Your task to perform on an android device: turn off translation in the chrome app Image 0: 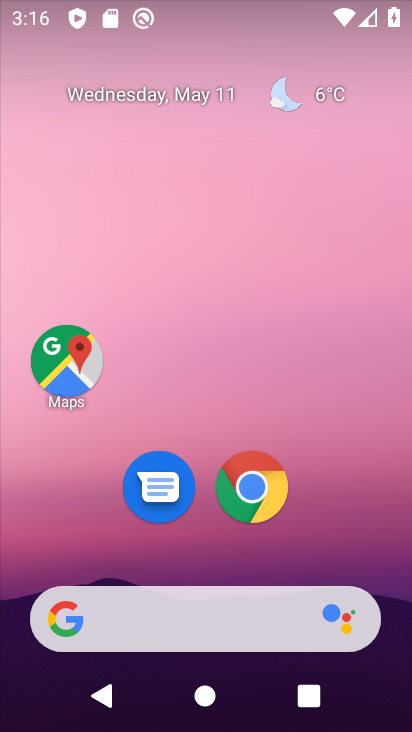
Step 0: click (262, 496)
Your task to perform on an android device: turn off translation in the chrome app Image 1: 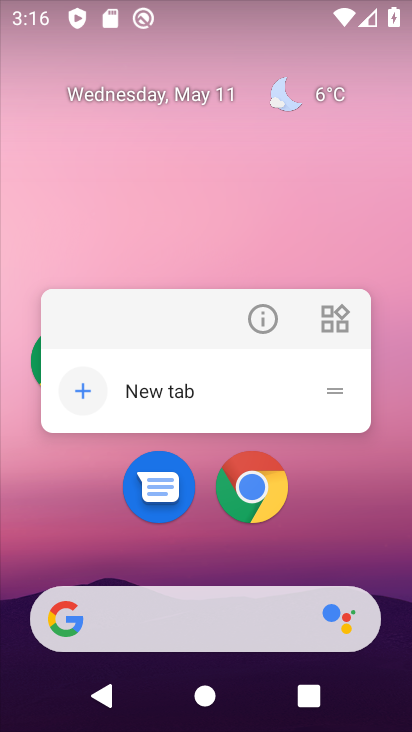
Step 1: click (262, 496)
Your task to perform on an android device: turn off translation in the chrome app Image 2: 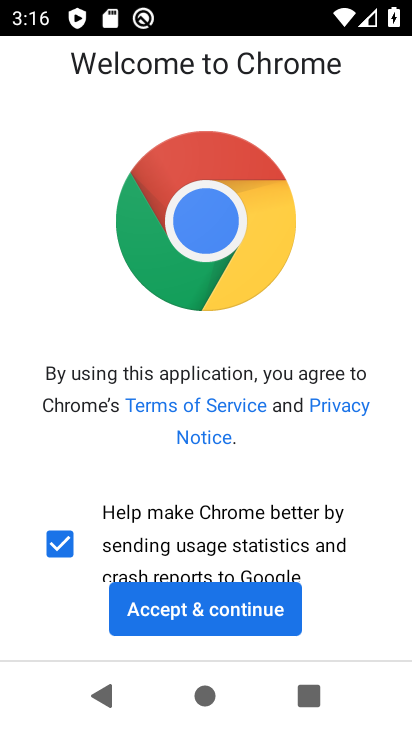
Step 2: click (255, 617)
Your task to perform on an android device: turn off translation in the chrome app Image 3: 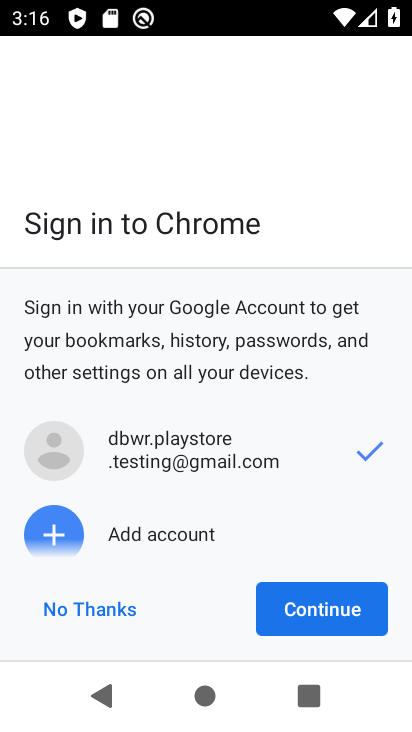
Step 3: click (299, 616)
Your task to perform on an android device: turn off translation in the chrome app Image 4: 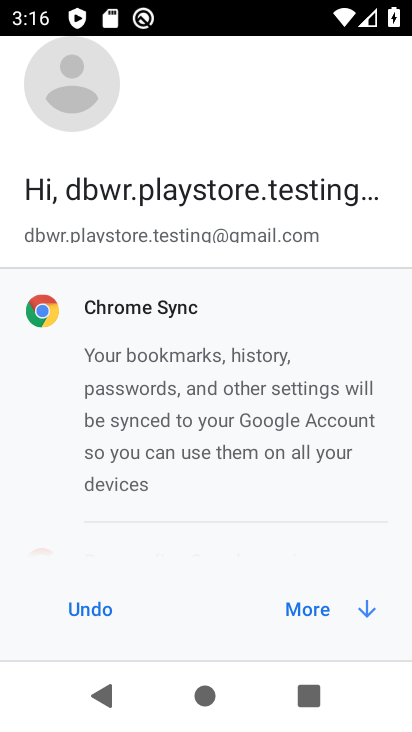
Step 4: click (299, 616)
Your task to perform on an android device: turn off translation in the chrome app Image 5: 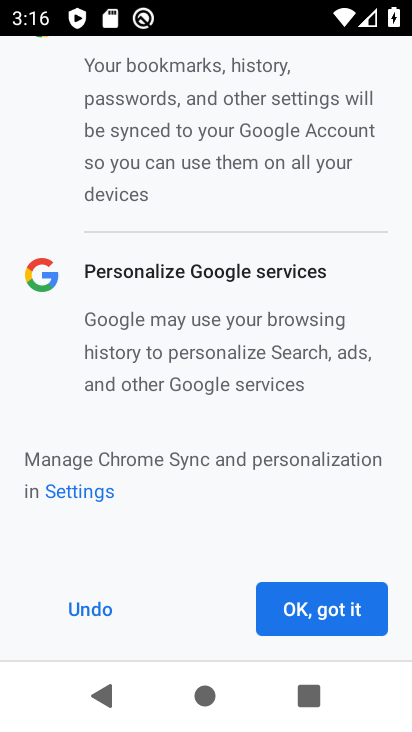
Step 5: click (299, 616)
Your task to perform on an android device: turn off translation in the chrome app Image 6: 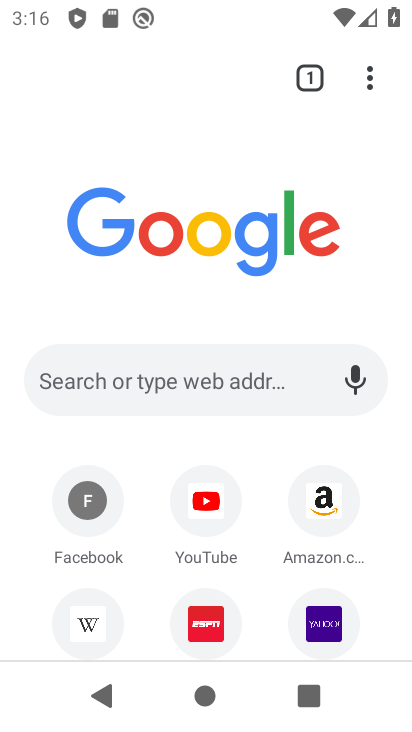
Step 6: drag from (379, 88) to (260, 570)
Your task to perform on an android device: turn off translation in the chrome app Image 7: 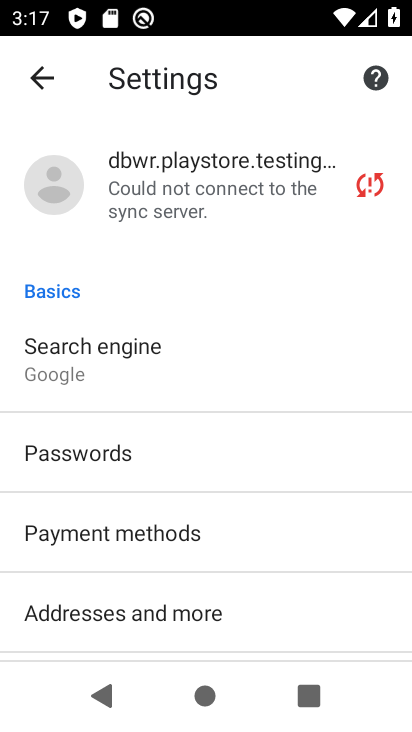
Step 7: drag from (203, 604) to (295, 298)
Your task to perform on an android device: turn off translation in the chrome app Image 8: 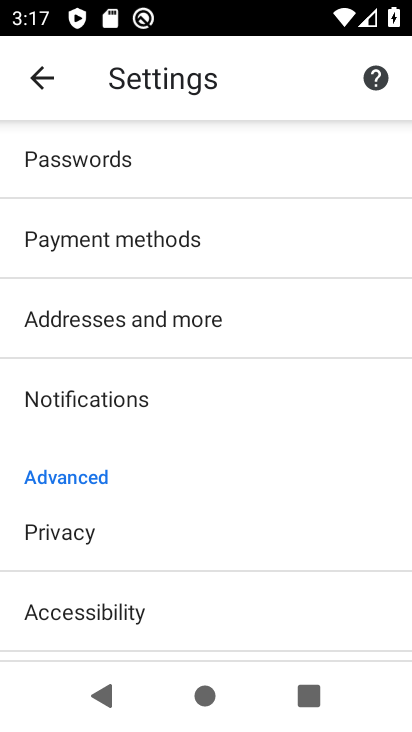
Step 8: drag from (190, 632) to (324, 207)
Your task to perform on an android device: turn off translation in the chrome app Image 9: 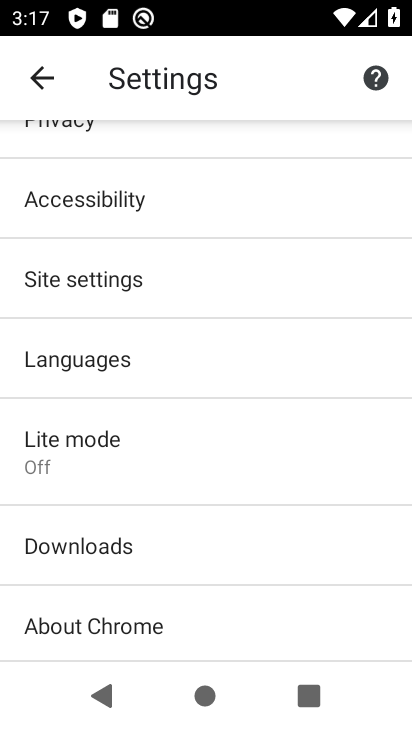
Step 9: drag from (165, 623) to (285, 228)
Your task to perform on an android device: turn off translation in the chrome app Image 10: 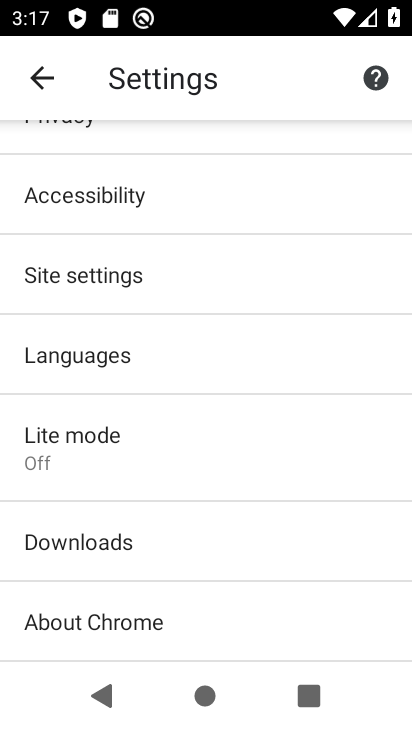
Step 10: drag from (164, 635) to (332, 167)
Your task to perform on an android device: turn off translation in the chrome app Image 11: 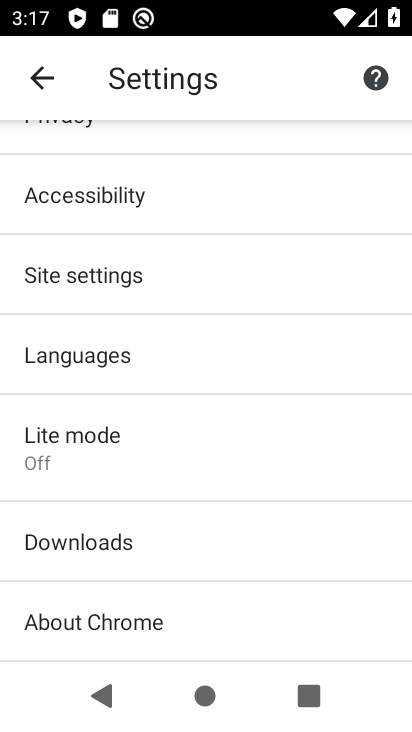
Step 11: drag from (165, 650) to (270, 284)
Your task to perform on an android device: turn off translation in the chrome app Image 12: 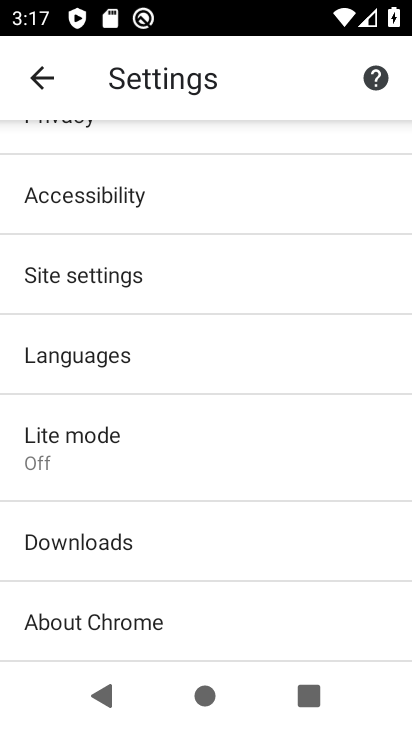
Step 12: click (165, 360)
Your task to perform on an android device: turn off translation in the chrome app Image 13: 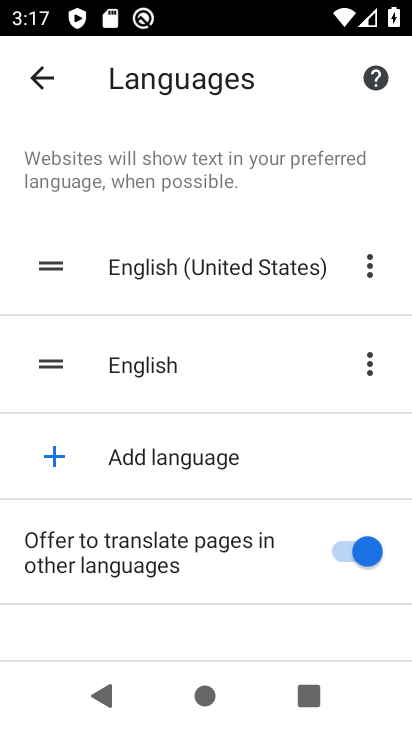
Step 13: drag from (208, 613) to (313, 334)
Your task to perform on an android device: turn off translation in the chrome app Image 14: 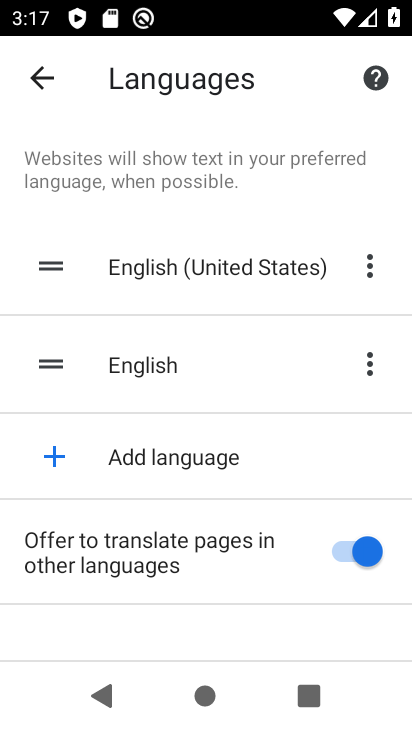
Step 14: click (363, 555)
Your task to perform on an android device: turn off translation in the chrome app Image 15: 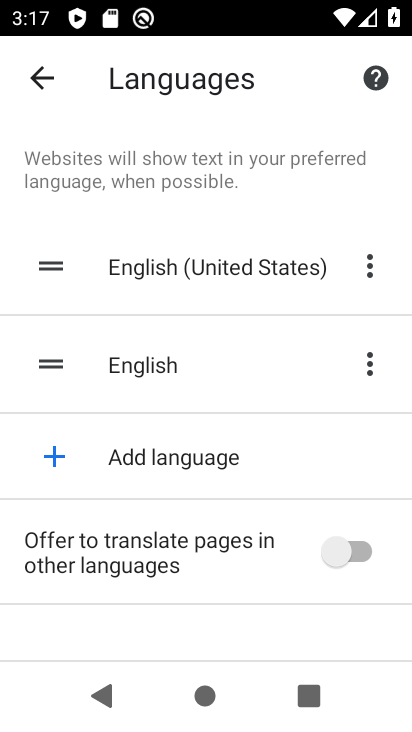
Step 15: task complete